Your task to perform on an android device: Is it going to rain today? Image 0: 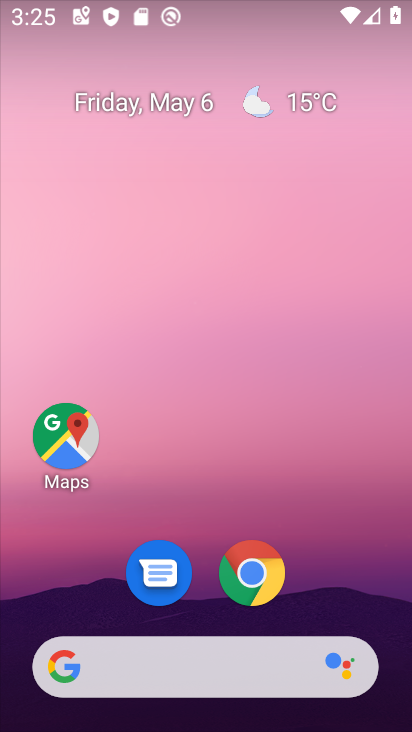
Step 0: drag from (207, 604) to (257, 306)
Your task to perform on an android device: Is it going to rain today? Image 1: 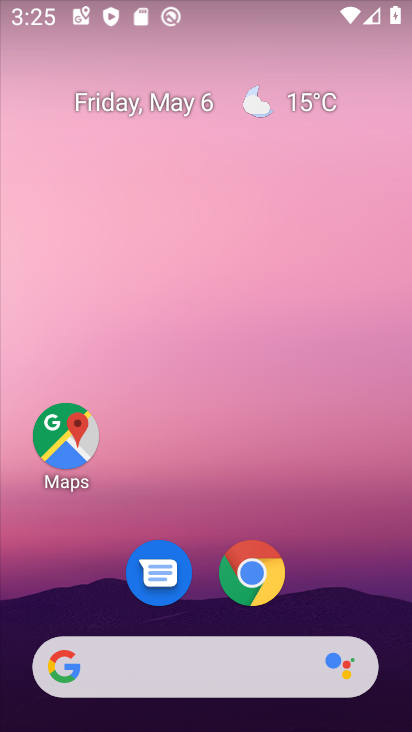
Step 1: drag from (213, 603) to (252, 360)
Your task to perform on an android device: Is it going to rain today? Image 2: 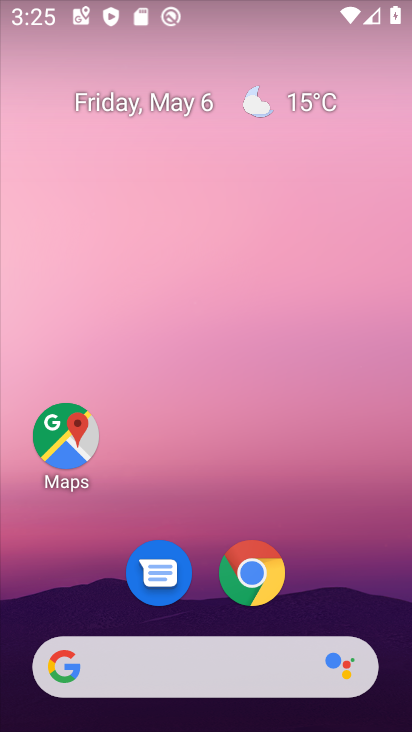
Step 2: drag from (222, 596) to (254, 238)
Your task to perform on an android device: Is it going to rain today? Image 3: 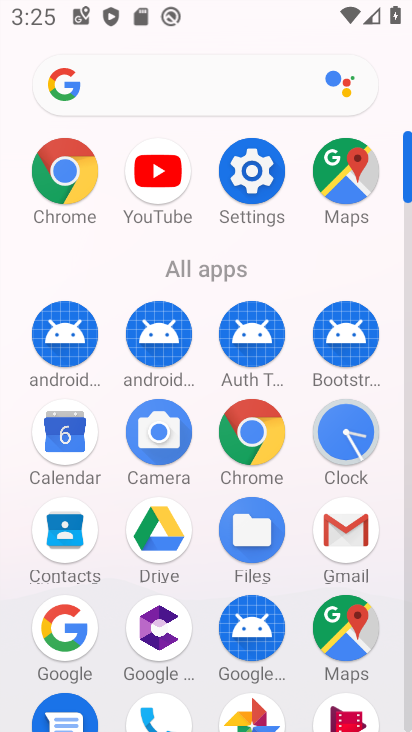
Step 3: drag from (203, 687) to (206, 286)
Your task to perform on an android device: Is it going to rain today? Image 4: 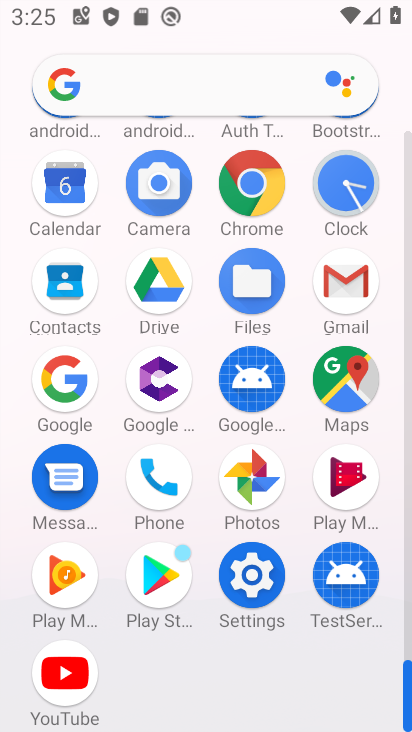
Step 4: drag from (204, 646) to (221, 386)
Your task to perform on an android device: Is it going to rain today? Image 5: 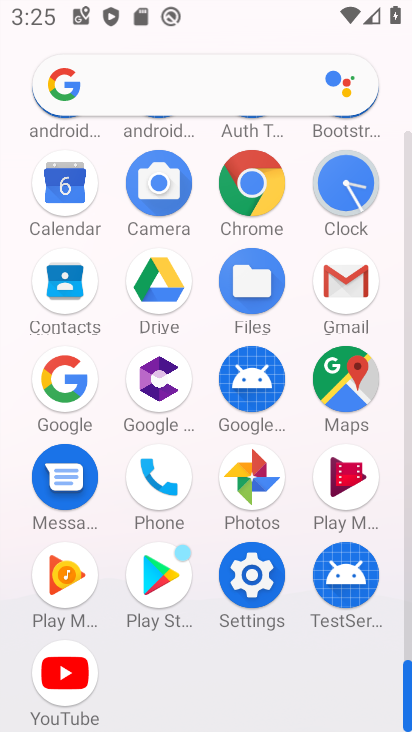
Step 5: click (160, 91)
Your task to perform on an android device: Is it going to rain today? Image 6: 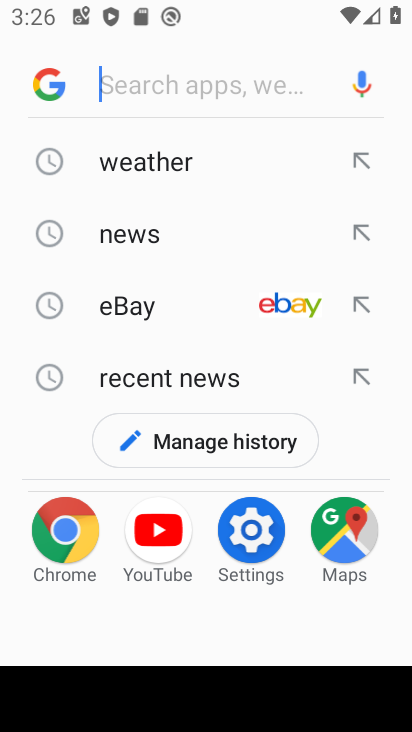
Step 6: type "rain today"
Your task to perform on an android device: Is it going to rain today? Image 7: 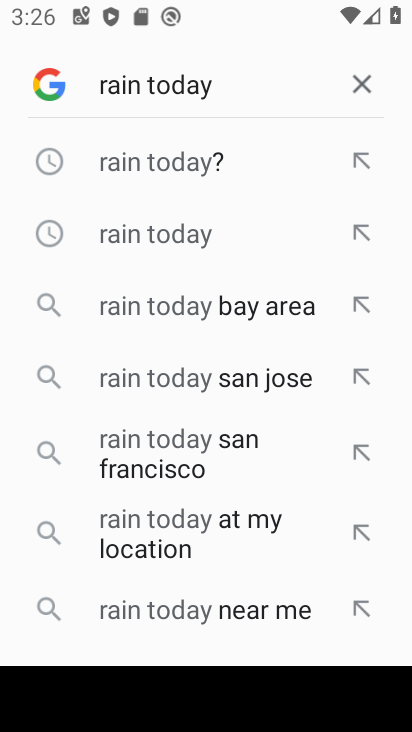
Step 7: click (193, 175)
Your task to perform on an android device: Is it going to rain today? Image 8: 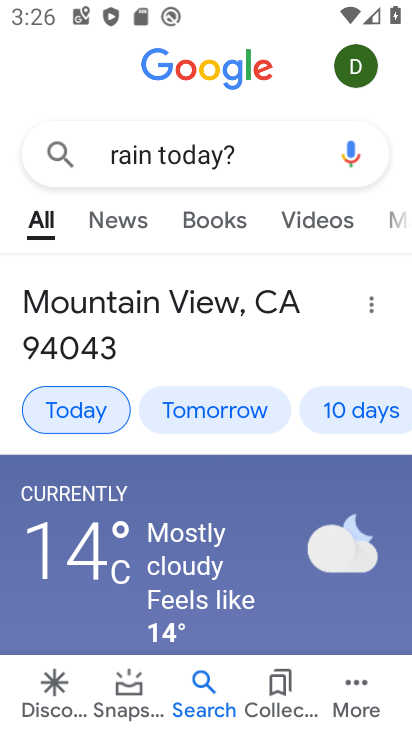
Step 8: task complete